Your task to perform on an android device: open wifi settings Image 0: 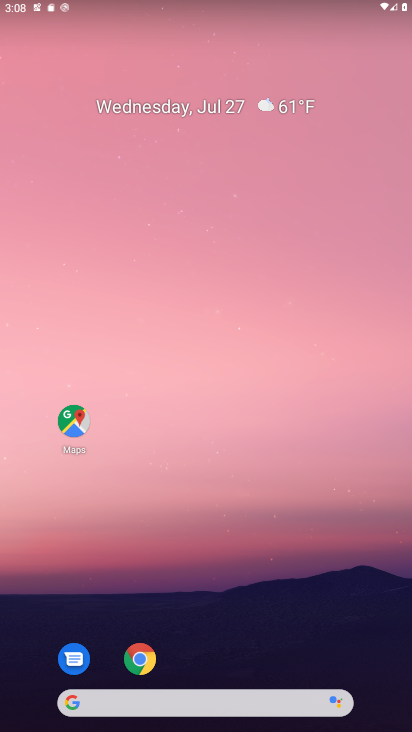
Step 0: drag from (209, 696) to (159, 62)
Your task to perform on an android device: open wifi settings Image 1: 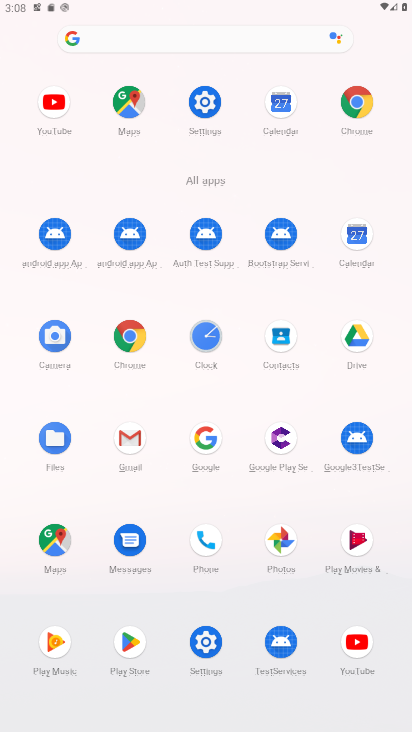
Step 1: click (188, 118)
Your task to perform on an android device: open wifi settings Image 2: 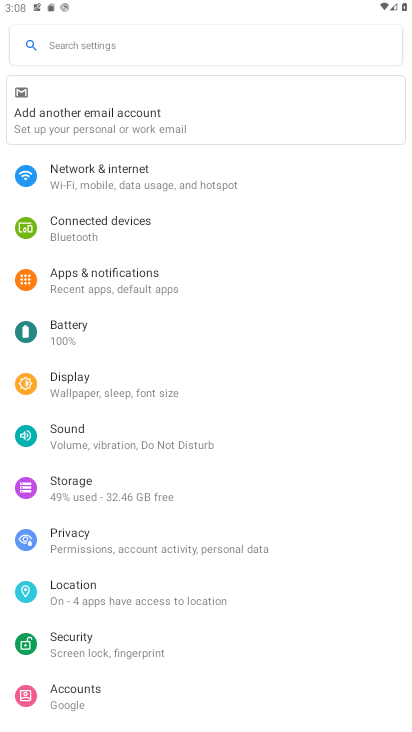
Step 2: click (115, 181)
Your task to perform on an android device: open wifi settings Image 3: 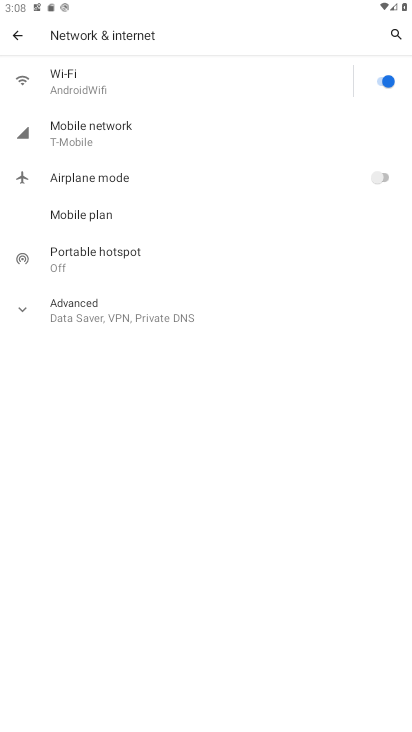
Step 3: click (104, 80)
Your task to perform on an android device: open wifi settings Image 4: 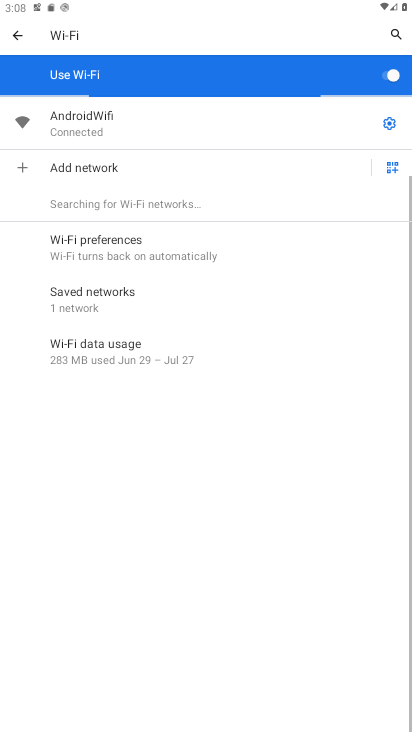
Step 4: task complete